Your task to perform on an android device: turn on the 12-hour format for clock Image 0: 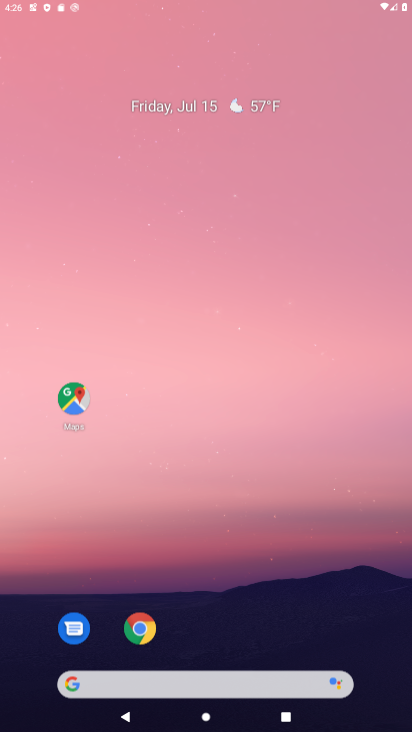
Step 0: press home button
Your task to perform on an android device: turn on the 12-hour format for clock Image 1: 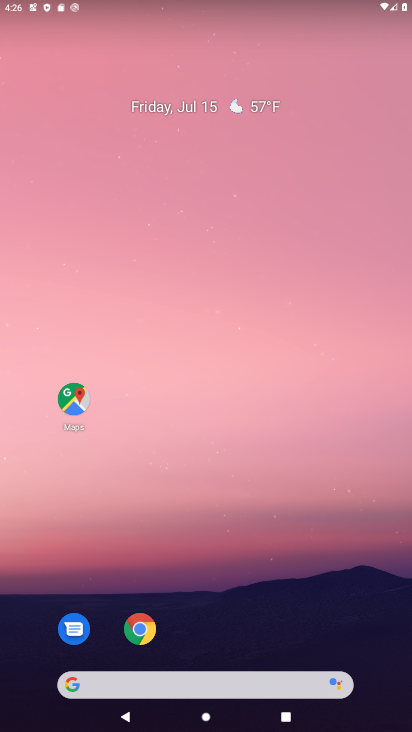
Step 1: drag from (253, 606) to (240, 3)
Your task to perform on an android device: turn on the 12-hour format for clock Image 2: 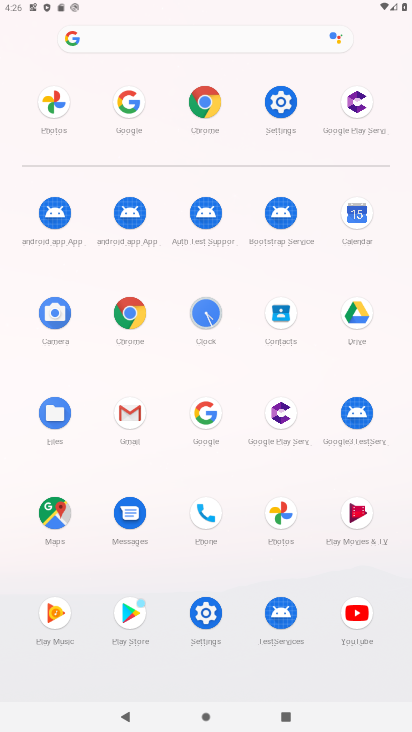
Step 2: click (281, 107)
Your task to perform on an android device: turn on the 12-hour format for clock Image 3: 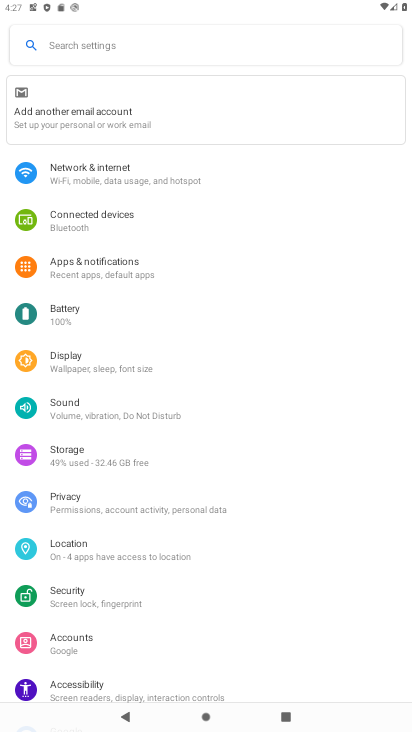
Step 3: drag from (337, 591) to (367, 54)
Your task to perform on an android device: turn on the 12-hour format for clock Image 4: 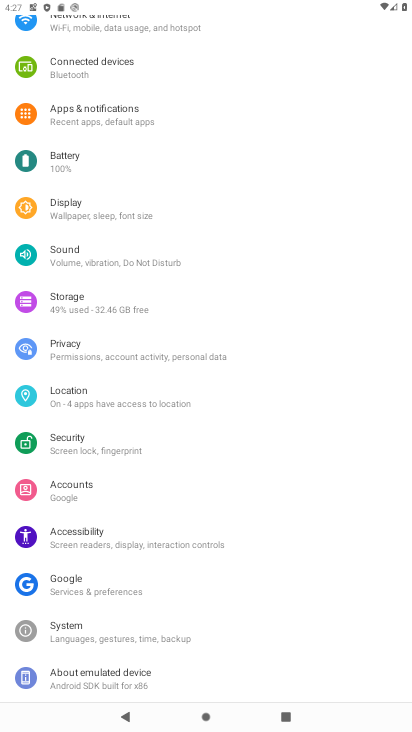
Step 4: click (74, 639)
Your task to perform on an android device: turn on the 12-hour format for clock Image 5: 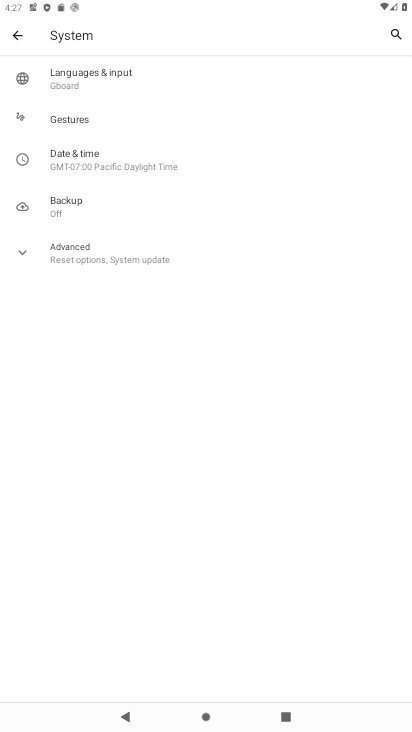
Step 5: click (86, 160)
Your task to perform on an android device: turn on the 12-hour format for clock Image 6: 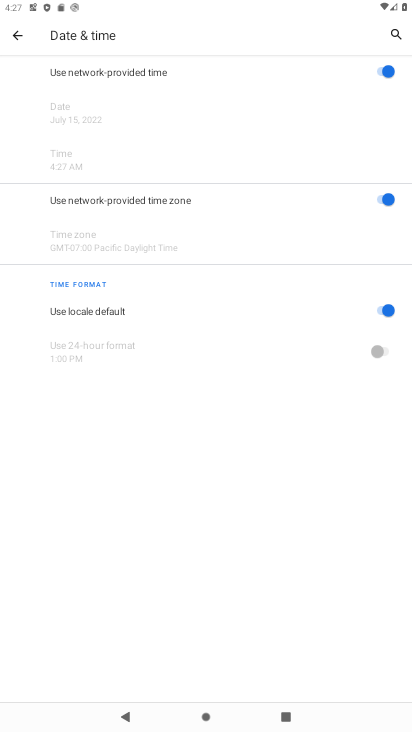
Step 6: click (382, 308)
Your task to perform on an android device: turn on the 12-hour format for clock Image 7: 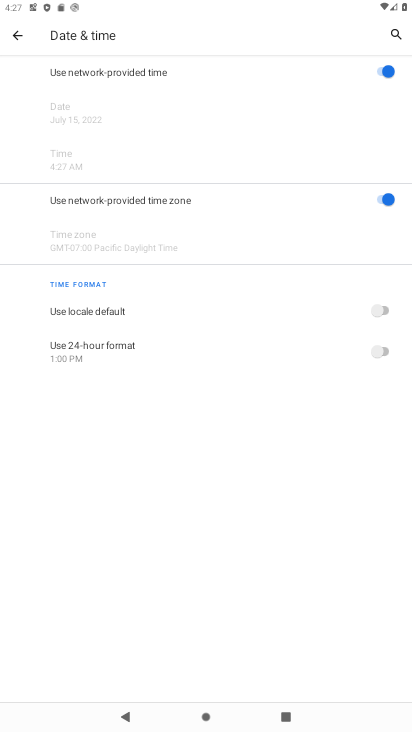
Step 7: task complete